Your task to perform on an android device: Go to sound settings Image 0: 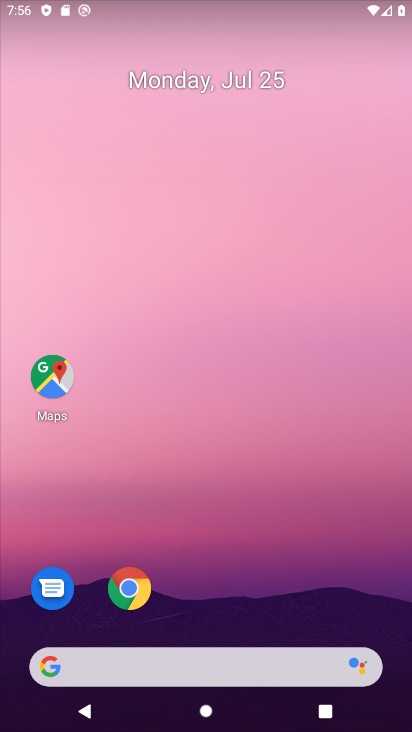
Step 0: drag from (205, 600) to (254, 214)
Your task to perform on an android device: Go to sound settings Image 1: 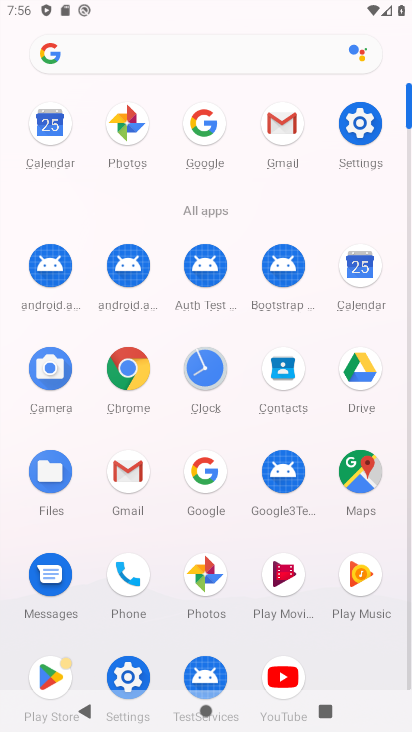
Step 1: click (367, 122)
Your task to perform on an android device: Go to sound settings Image 2: 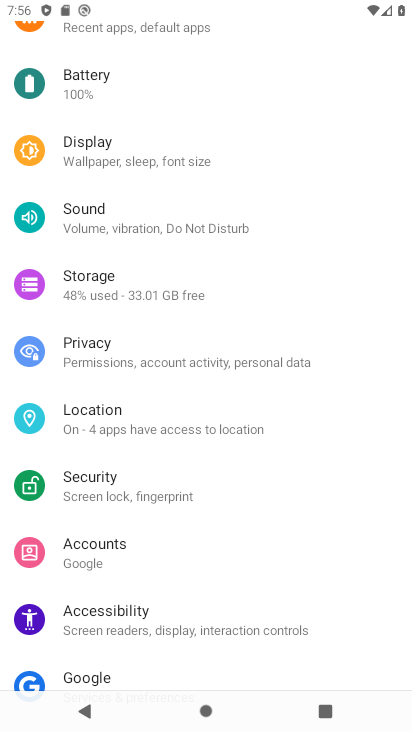
Step 2: click (71, 219)
Your task to perform on an android device: Go to sound settings Image 3: 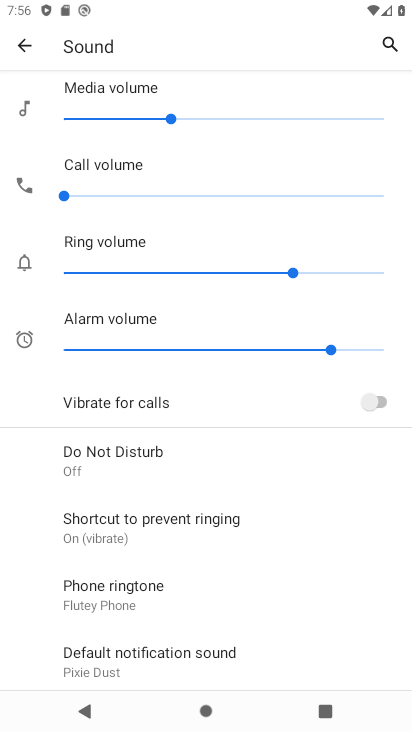
Step 3: drag from (134, 675) to (173, 290)
Your task to perform on an android device: Go to sound settings Image 4: 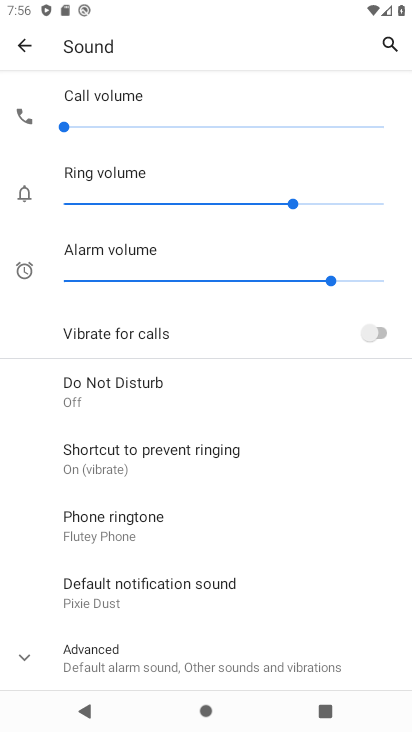
Step 4: click (110, 664)
Your task to perform on an android device: Go to sound settings Image 5: 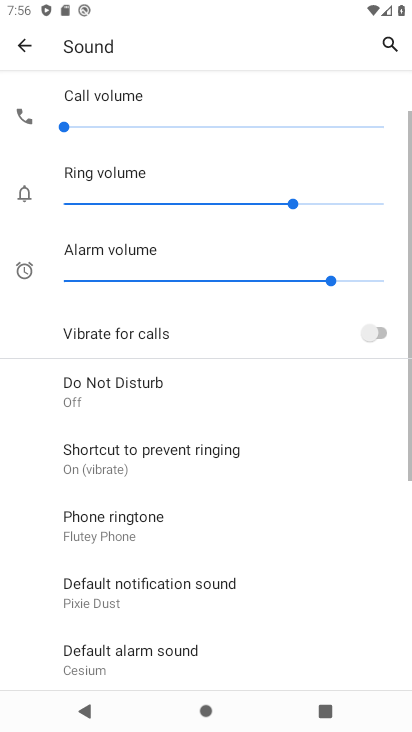
Step 5: task complete